Your task to perform on an android device: See recent photos Image 0: 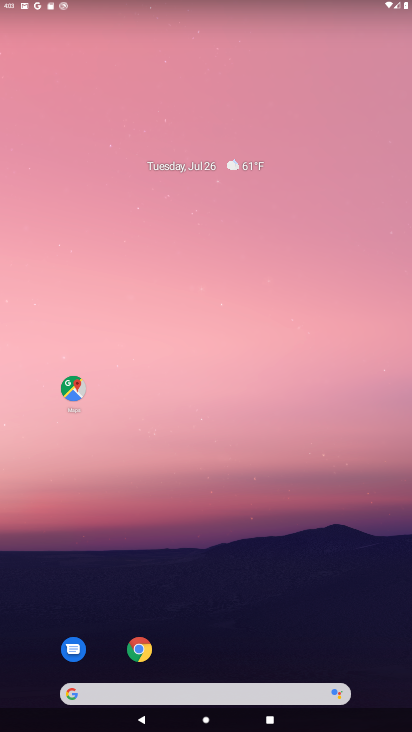
Step 0: drag from (250, 566) to (254, 279)
Your task to perform on an android device: See recent photos Image 1: 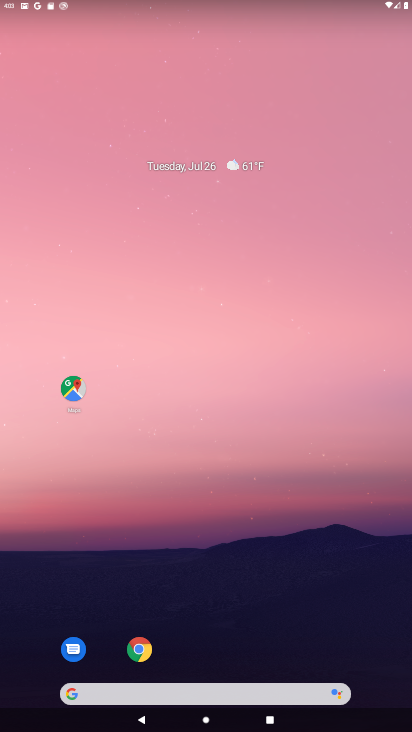
Step 1: drag from (228, 556) to (249, 223)
Your task to perform on an android device: See recent photos Image 2: 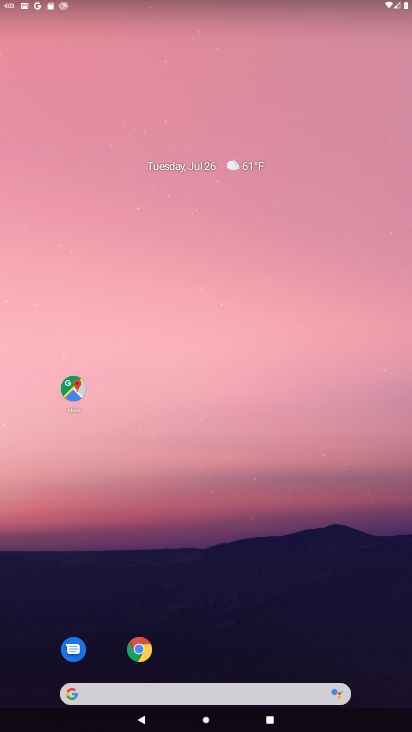
Step 2: drag from (229, 603) to (266, 195)
Your task to perform on an android device: See recent photos Image 3: 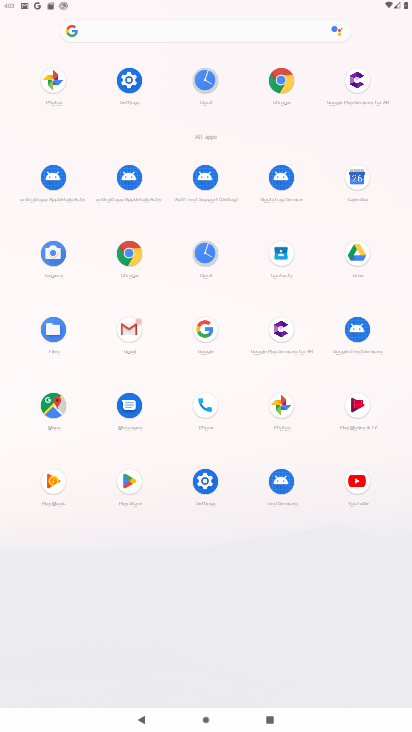
Step 3: click (272, 414)
Your task to perform on an android device: See recent photos Image 4: 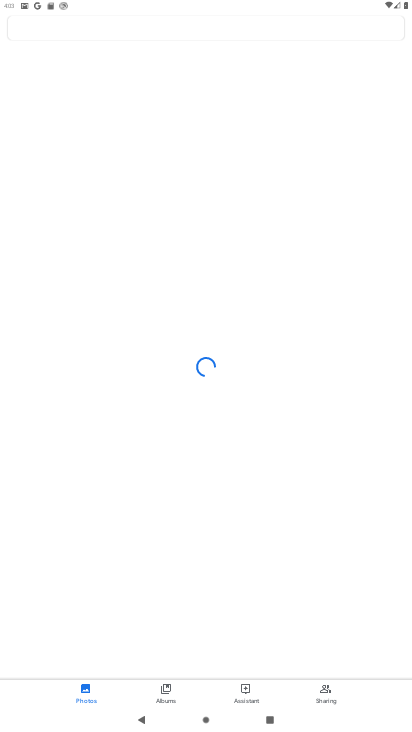
Step 4: task complete